Your task to perform on an android device: set the timer Image 0: 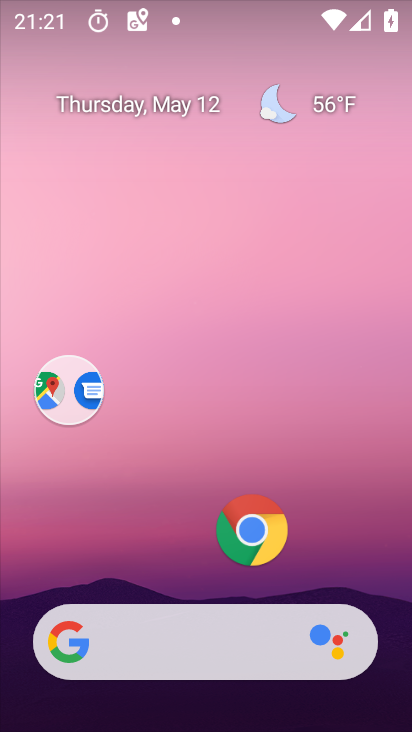
Step 0: drag from (151, 445) to (97, 104)
Your task to perform on an android device: set the timer Image 1: 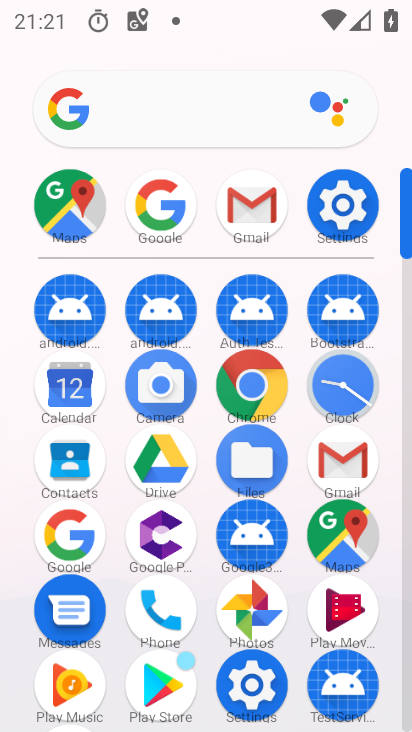
Step 1: click (347, 382)
Your task to perform on an android device: set the timer Image 2: 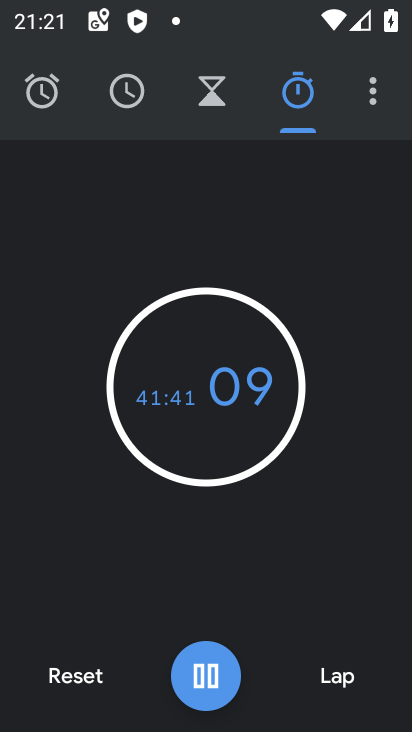
Step 2: click (206, 116)
Your task to perform on an android device: set the timer Image 3: 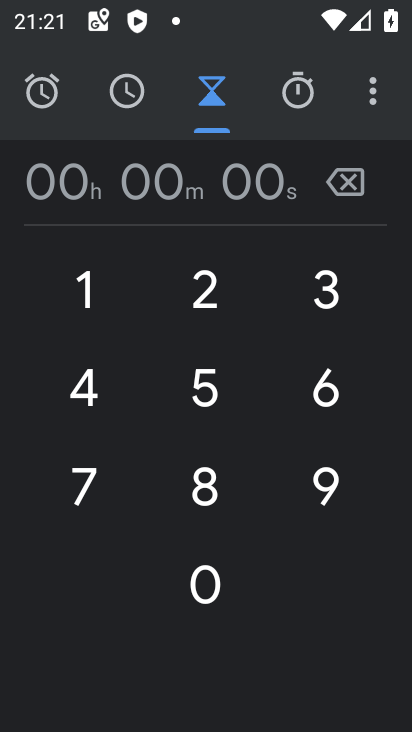
Step 3: click (207, 303)
Your task to perform on an android device: set the timer Image 4: 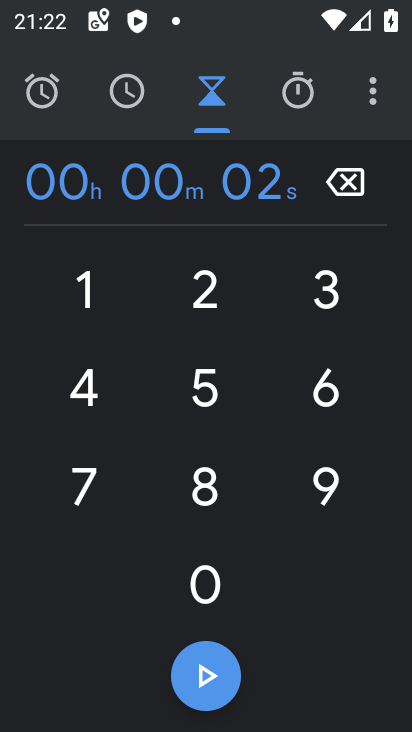
Step 4: task complete